Your task to perform on an android device: add a contact in the contacts app Image 0: 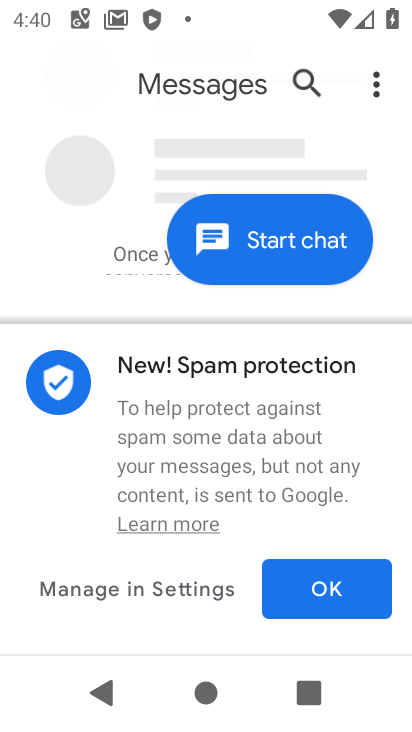
Step 0: press home button
Your task to perform on an android device: add a contact in the contacts app Image 1: 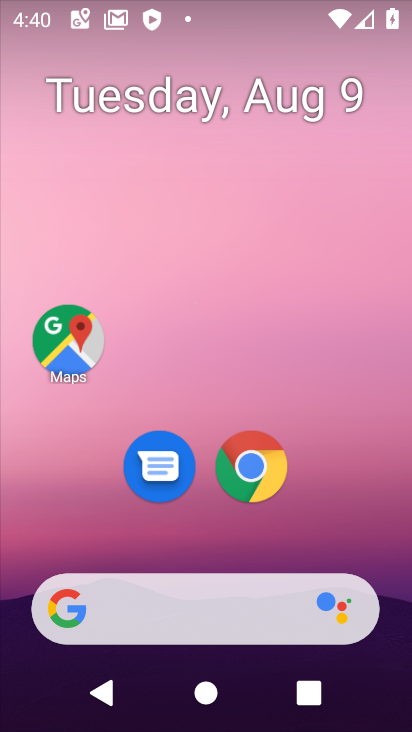
Step 1: drag from (230, 210) to (186, 5)
Your task to perform on an android device: add a contact in the contacts app Image 2: 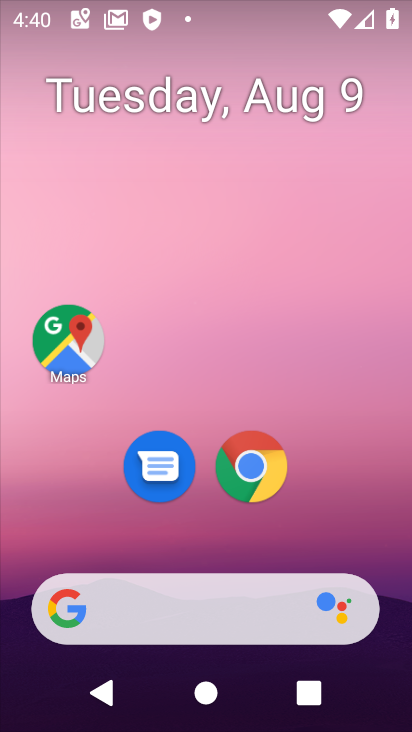
Step 2: drag from (229, 526) to (298, 31)
Your task to perform on an android device: add a contact in the contacts app Image 3: 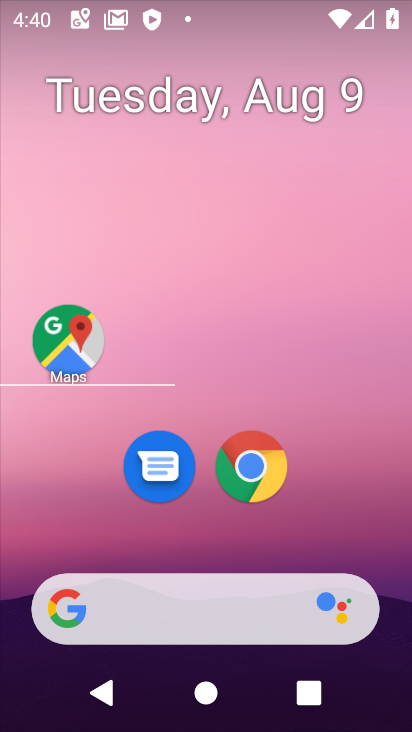
Step 3: drag from (216, 517) to (329, 45)
Your task to perform on an android device: add a contact in the contacts app Image 4: 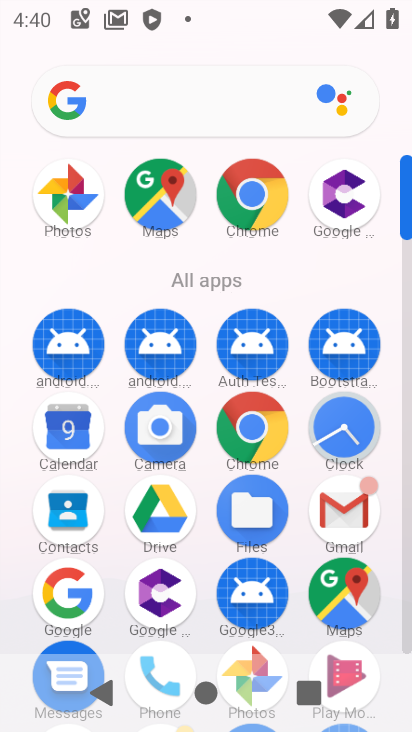
Step 4: click (58, 505)
Your task to perform on an android device: add a contact in the contacts app Image 5: 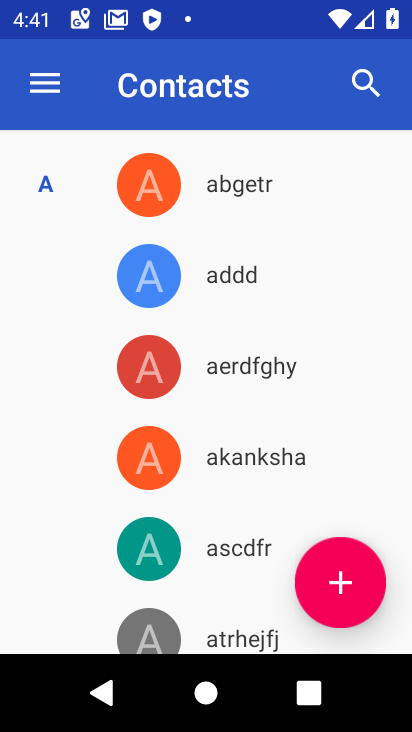
Step 5: drag from (185, 597) to (251, 207)
Your task to perform on an android device: add a contact in the contacts app Image 6: 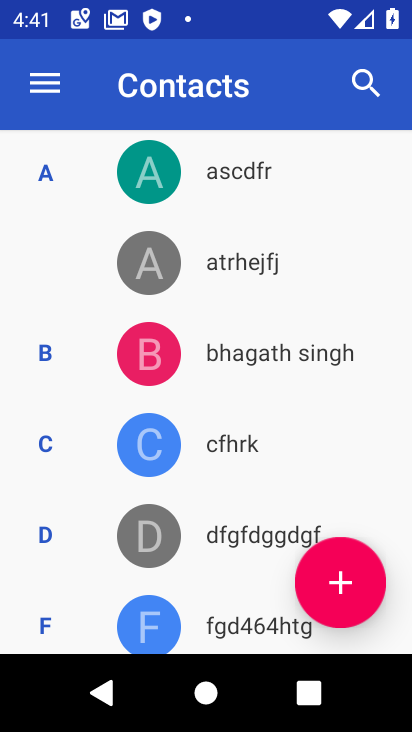
Step 6: click (330, 577)
Your task to perform on an android device: add a contact in the contacts app Image 7: 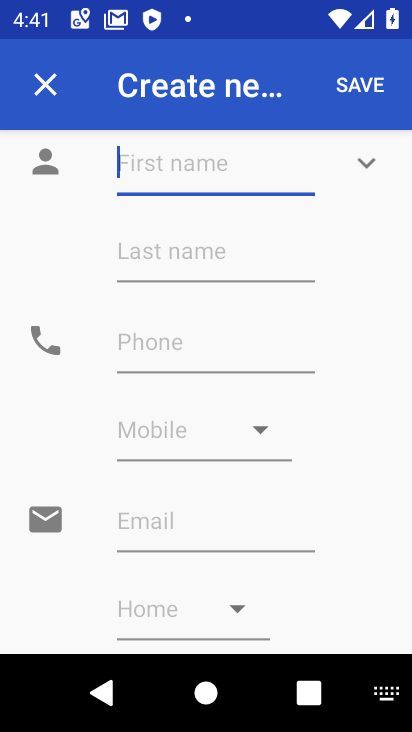
Step 7: type "mnmvfh"
Your task to perform on an android device: add a contact in the contacts app Image 8: 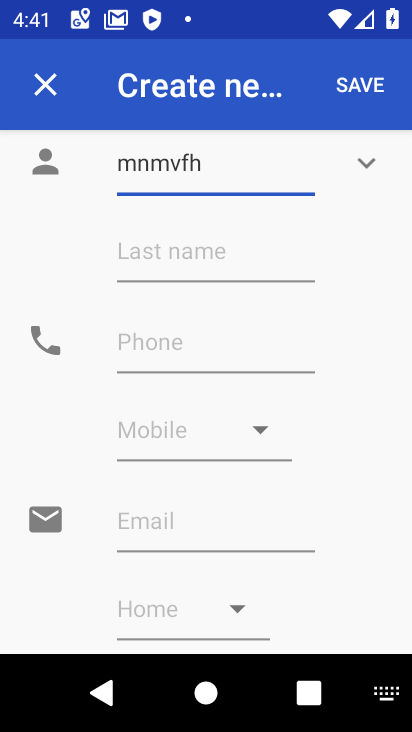
Step 8: click (363, 96)
Your task to perform on an android device: add a contact in the contacts app Image 9: 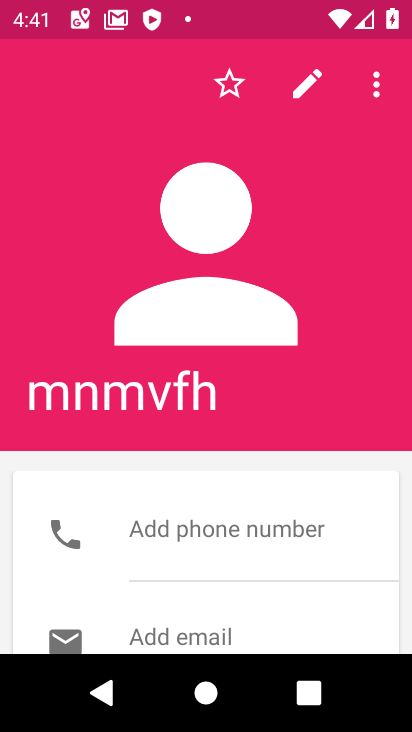
Step 9: task complete